Your task to perform on an android device: turn on airplane mode Image 0: 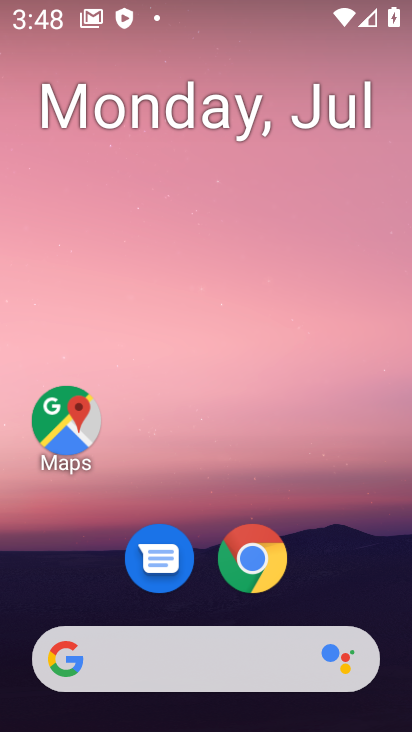
Step 0: drag from (348, 15) to (262, 568)
Your task to perform on an android device: turn on airplane mode Image 1: 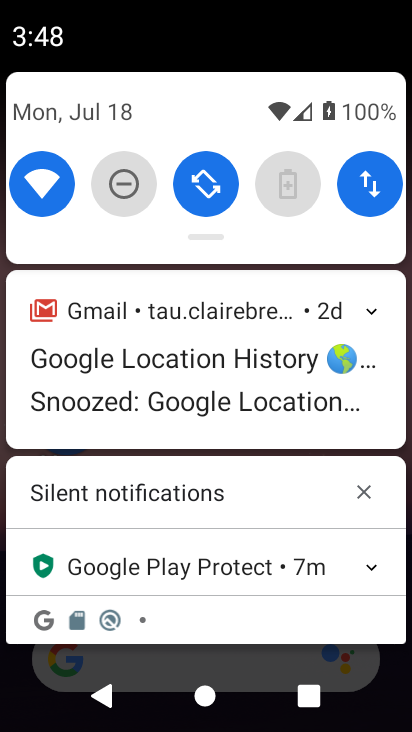
Step 1: drag from (363, 186) to (0, 186)
Your task to perform on an android device: turn on airplane mode Image 2: 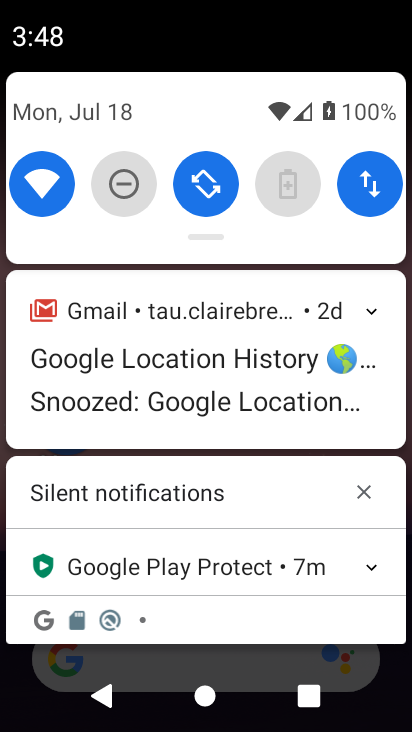
Step 2: drag from (215, 226) to (226, 645)
Your task to perform on an android device: turn on airplane mode Image 3: 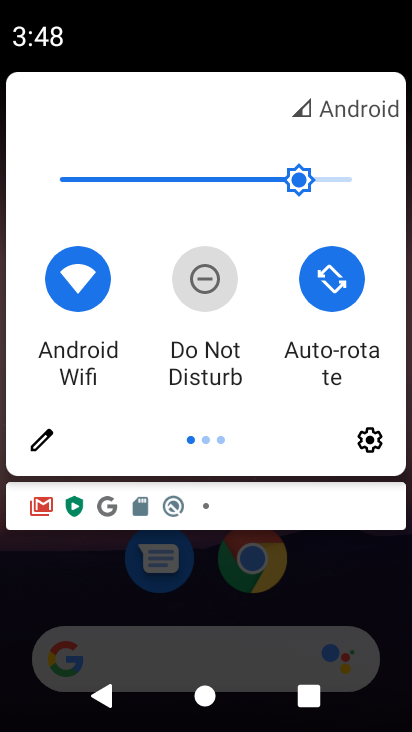
Step 3: drag from (339, 326) to (0, 344)
Your task to perform on an android device: turn on airplane mode Image 4: 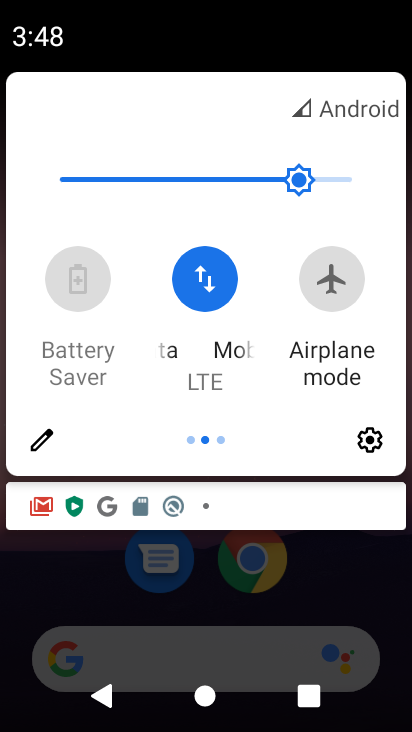
Step 4: click (335, 272)
Your task to perform on an android device: turn on airplane mode Image 5: 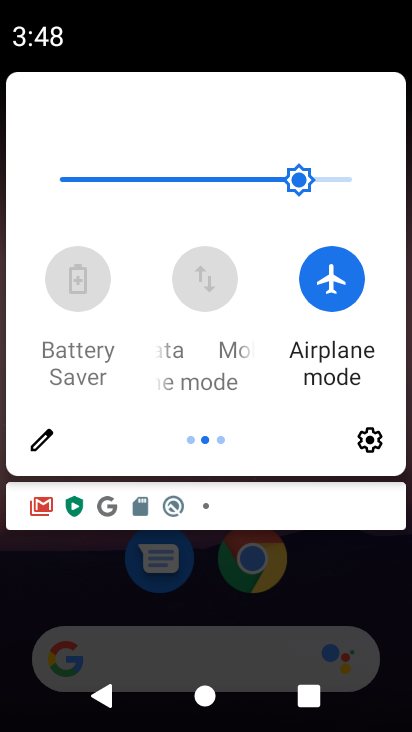
Step 5: task complete